Your task to perform on an android device: change keyboard looks Image 0: 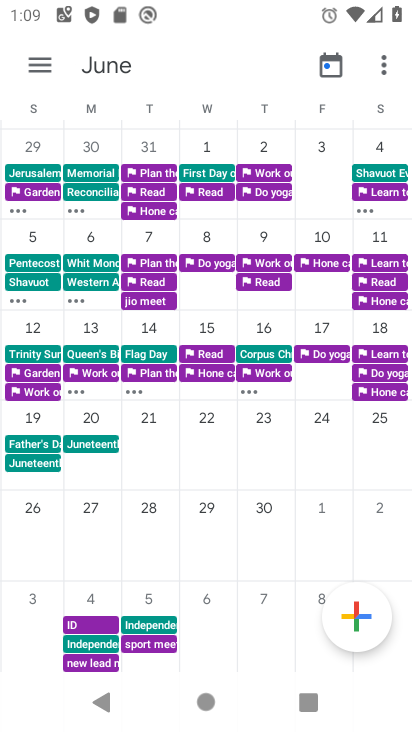
Step 0: press home button
Your task to perform on an android device: change keyboard looks Image 1: 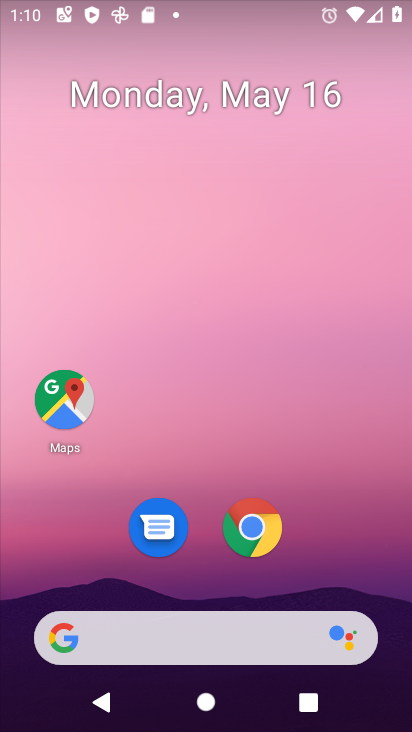
Step 1: drag from (365, 547) to (343, 122)
Your task to perform on an android device: change keyboard looks Image 2: 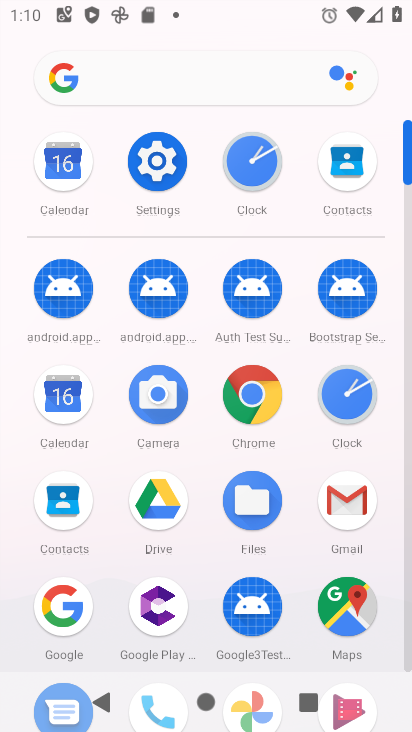
Step 2: click (169, 187)
Your task to perform on an android device: change keyboard looks Image 3: 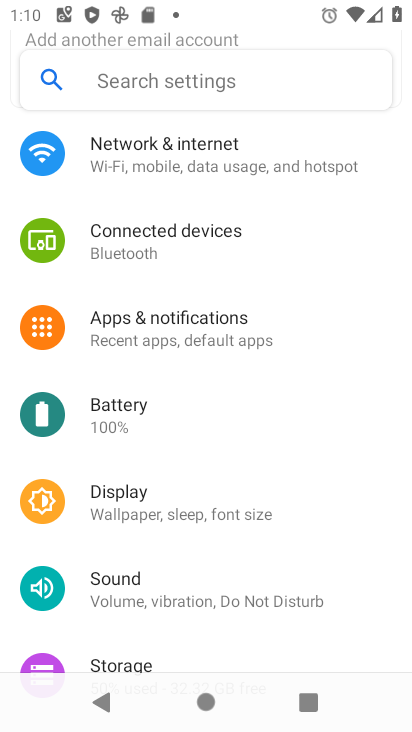
Step 3: drag from (166, 571) to (178, 178)
Your task to perform on an android device: change keyboard looks Image 4: 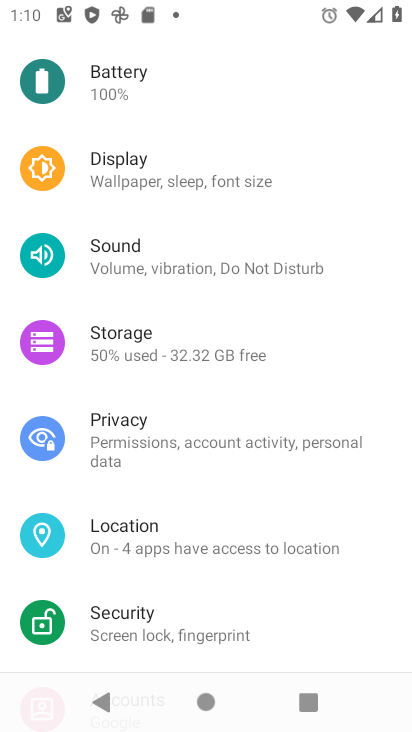
Step 4: drag from (154, 533) to (163, 178)
Your task to perform on an android device: change keyboard looks Image 5: 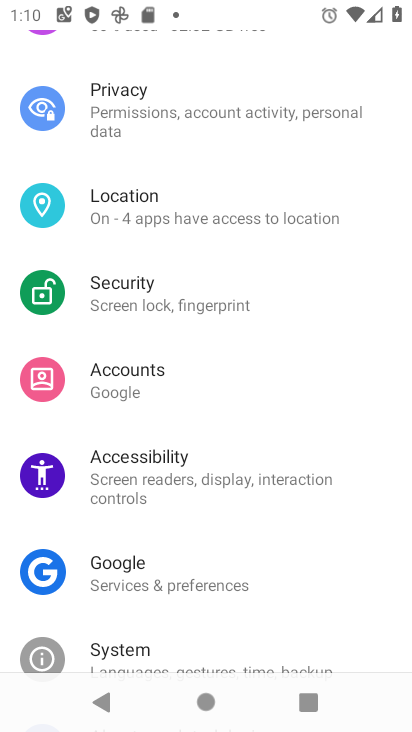
Step 5: drag from (183, 518) to (222, 273)
Your task to perform on an android device: change keyboard looks Image 6: 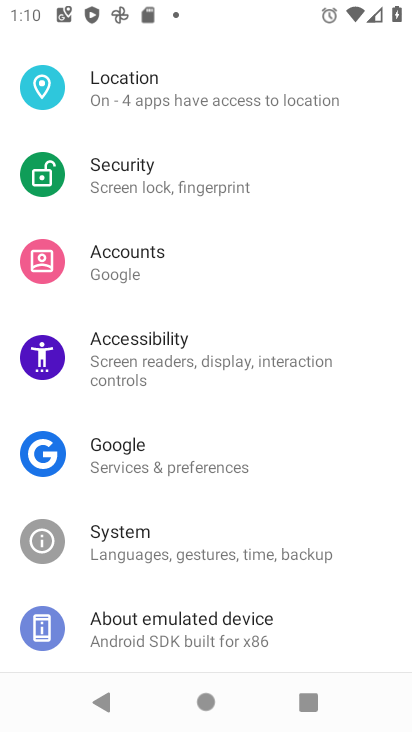
Step 6: drag from (156, 606) to (172, 381)
Your task to perform on an android device: change keyboard looks Image 7: 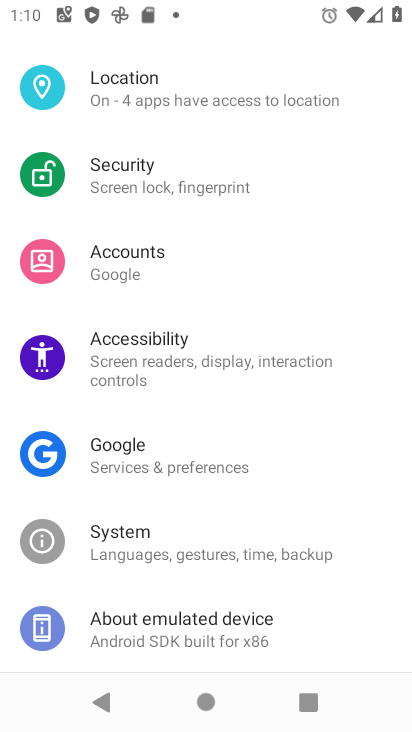
Step 7: click (168, 630)
Your task to perform on an android device: change keyboard looks Image 8: 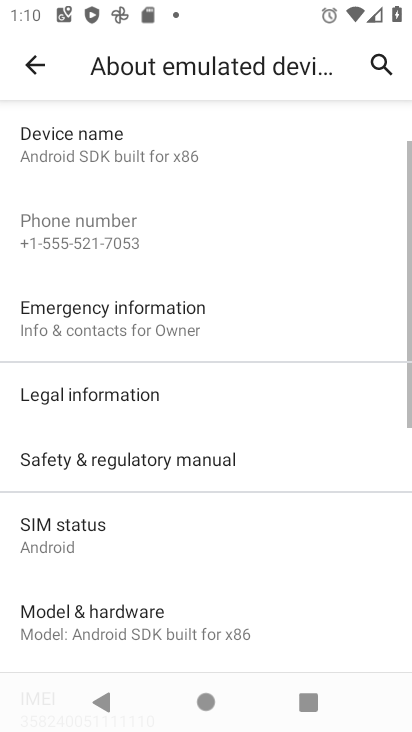
Step 8: drag from (148, 515) to (163, 188)
Your task to perform on an android device: change keyboard looks Image 9: 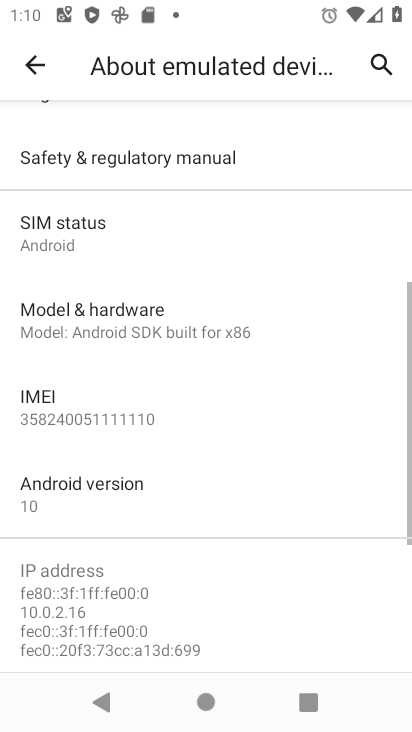
Step 9: drag from (158, 220) to (158, 383)
Your task to perform on an android device: change keyboard looks Image 10: 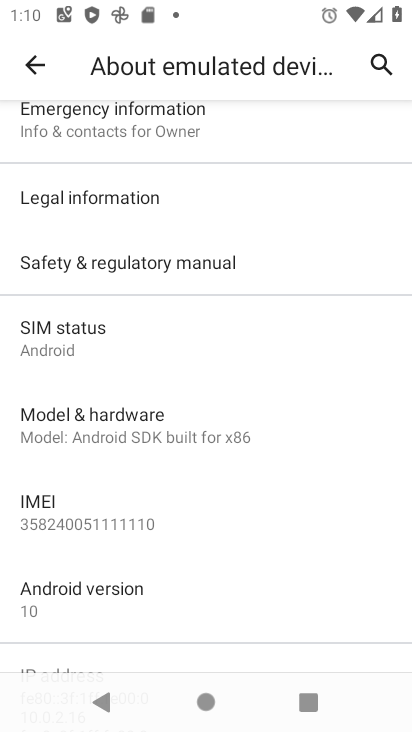
Step 10: click (41, 57)
Your task to perform on an android device: change keyboard looks Image 11: 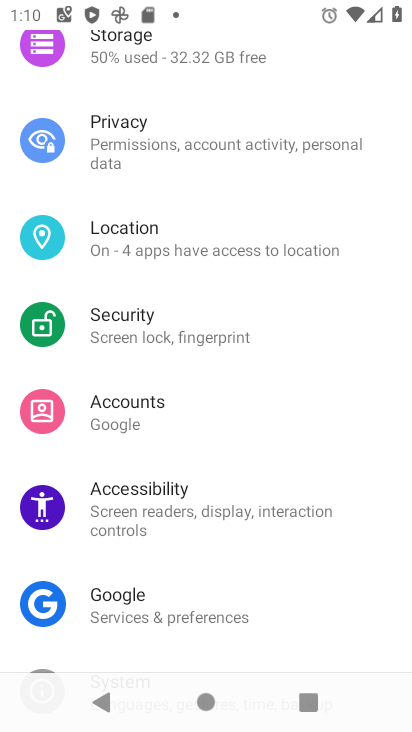
Step 11: drag from (154, 562) to (181, 233)
Your task to perform on an android device: change keyboard looks Image 12: 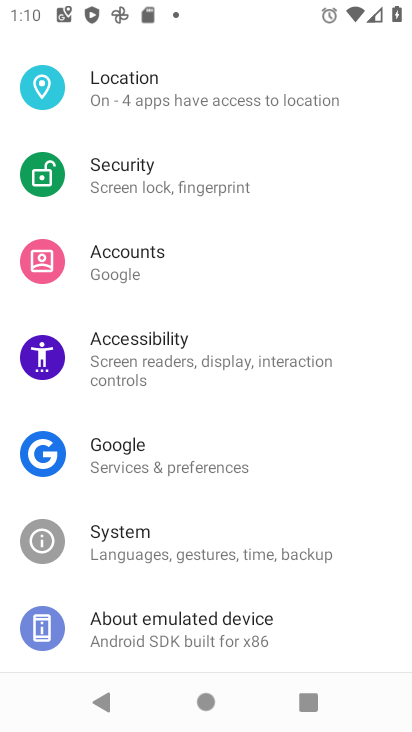
Step 12: click (195, 523)
Your task to perform on an android device: change keyboard looks Image 13: 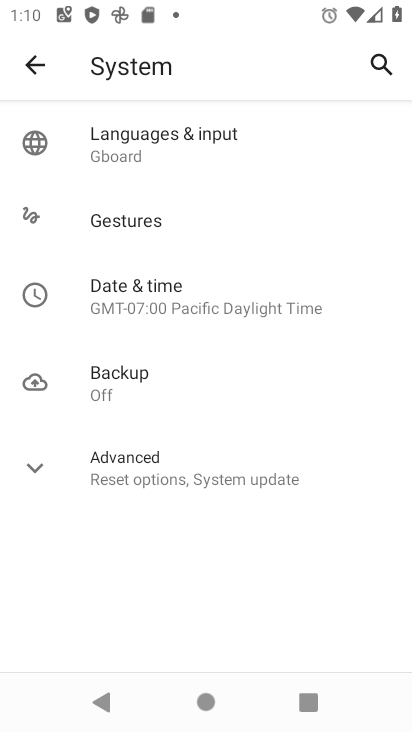
Step 13: click (145, 140)
Your task to perform on an android device: change keyboard looks Image 14: 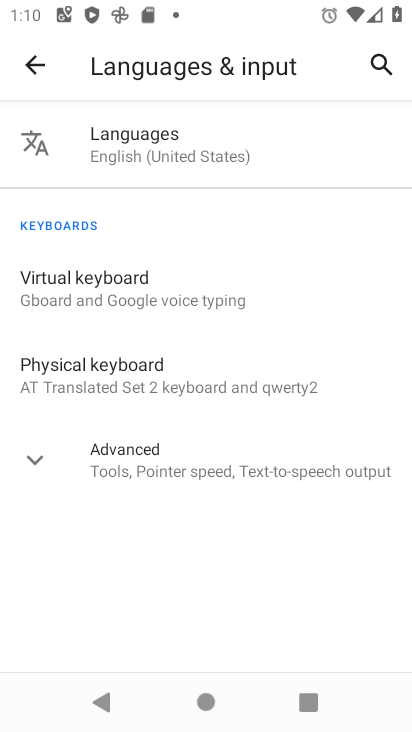
Step 14: click (156, 154)
Your task to perform on an android device: change keyboard looks Image 15: 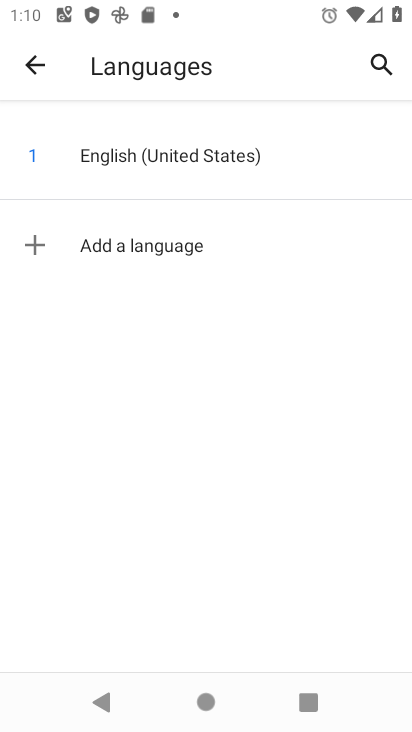
Step 15: click (37, 76)
Your task to perform on an android device: change keyboard looks Image 16: 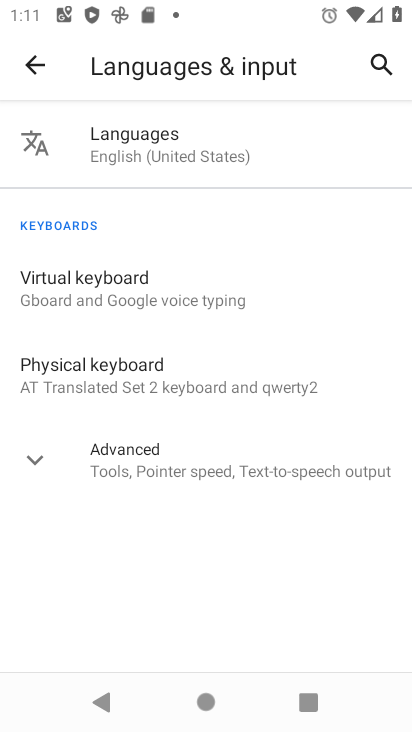
Step 16: click (167, 329)
Your task to perform on an android device: change keyboard looks Image 17: 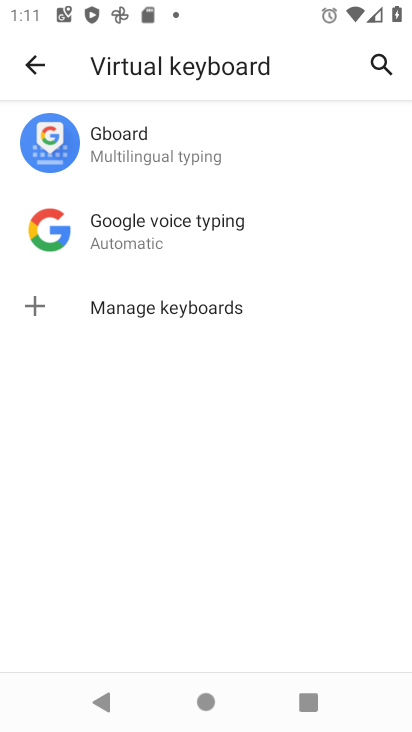
Step 17: click (158, 130)
Your task to perform on an android device: change keyboard looks Image 18: 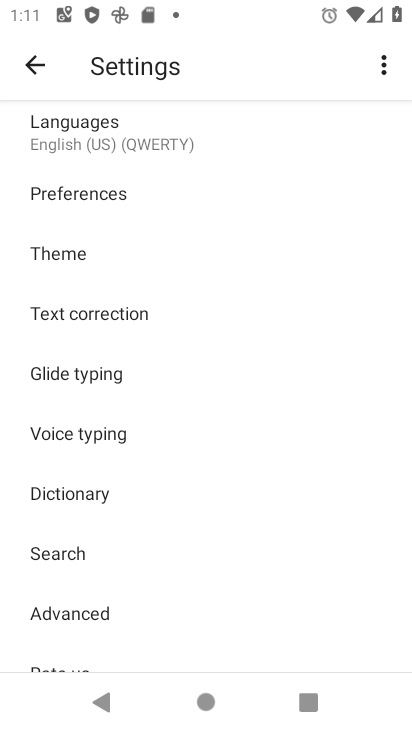
Step 18: click (95, 245)
Your task to perform on an android device: change keyboard looks Image 19: 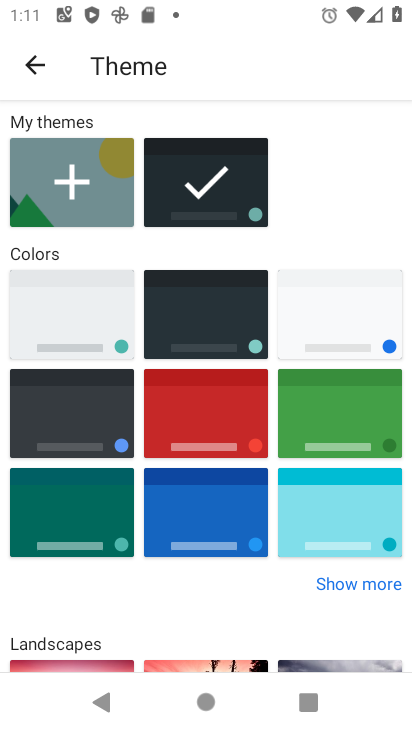
Step 19: click (203, 330)
Your task to perform on an android device: change keyboard looks Image 20: 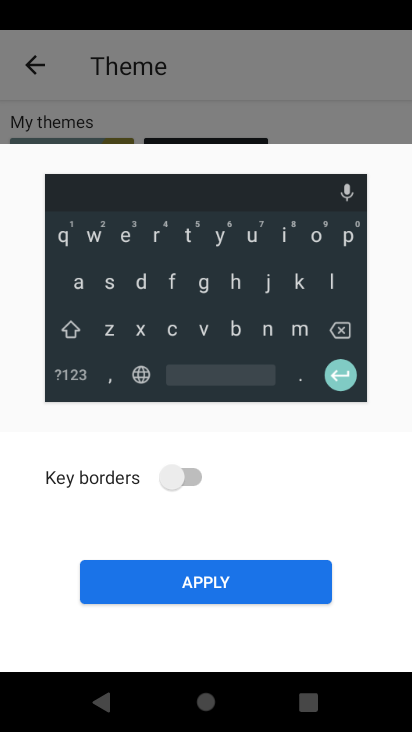
Step 20: click (271, 593)
Your task to perform on an android device: change keyboard looks Image 21: 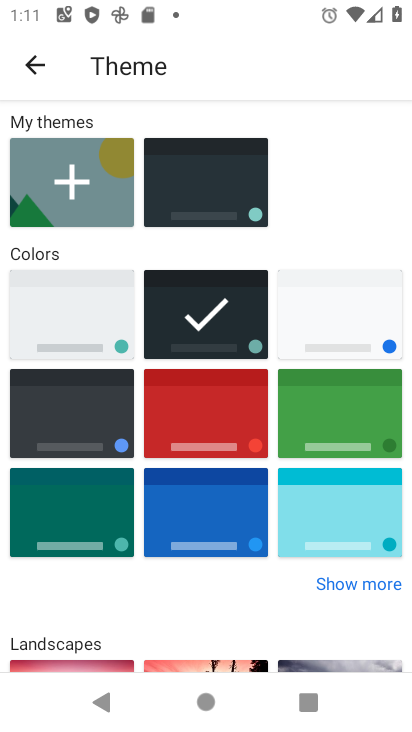
Step 21: task complete